Your task to perform on an android device: toggle javascript in the chrome app Image 0: 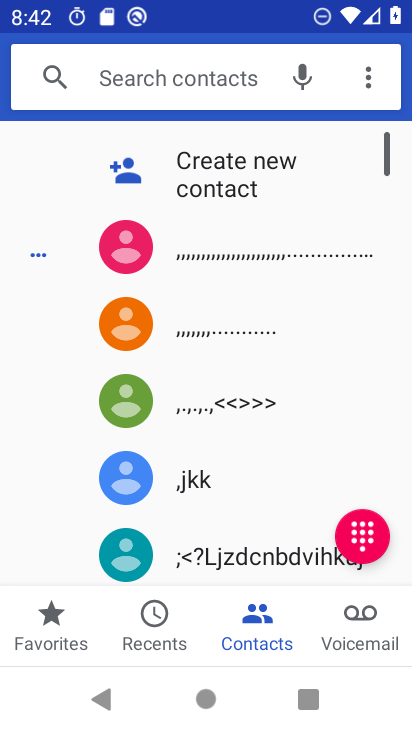
Step 0: press home button
Your task to perform on an android device: toggle javascript in the chrome app Image 1: 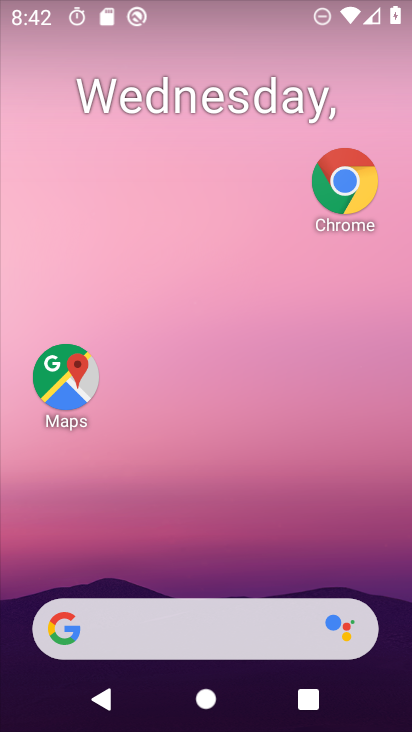
Step 1: drag from (251, 668) to (285, 334)
Your task to perform on an android device: toggle javascript in the chrome app Image 2: 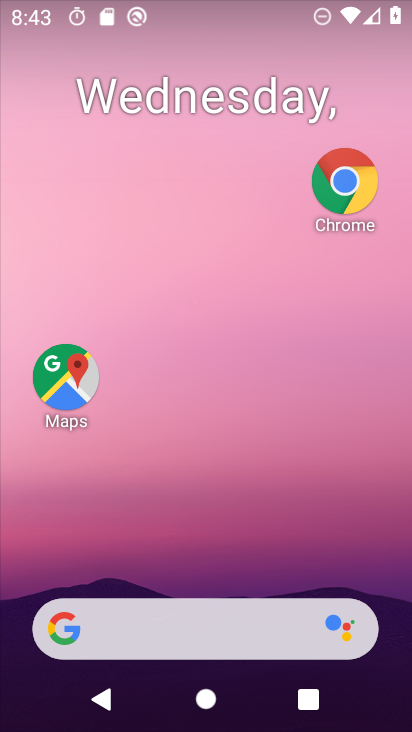
Step 2: drag from (242, 644) to (271, 3)
Your task to perform on an android device: toggle javascript in the chrome app Image 3: 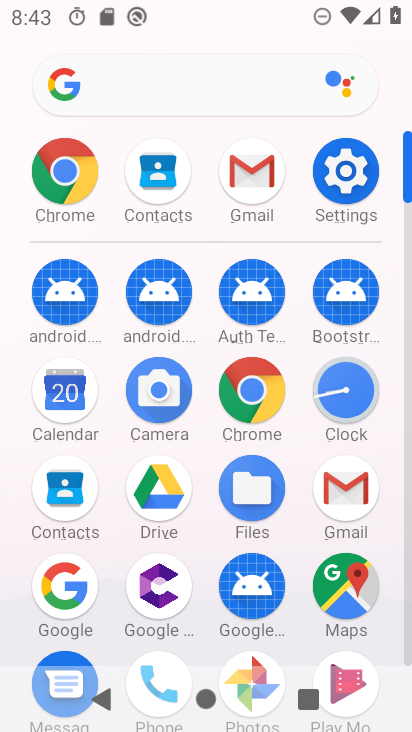
Step 3: click (255, 384)
Your task to perform on an android device: toggle javascript in the chrome app Image 4: 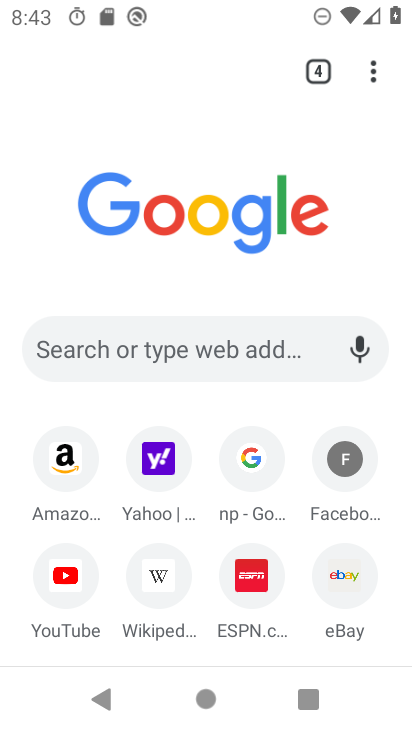
Step 4: click (373, 80)
Your task to perform on an android device: toggle javascript in the chrome app Image 5: 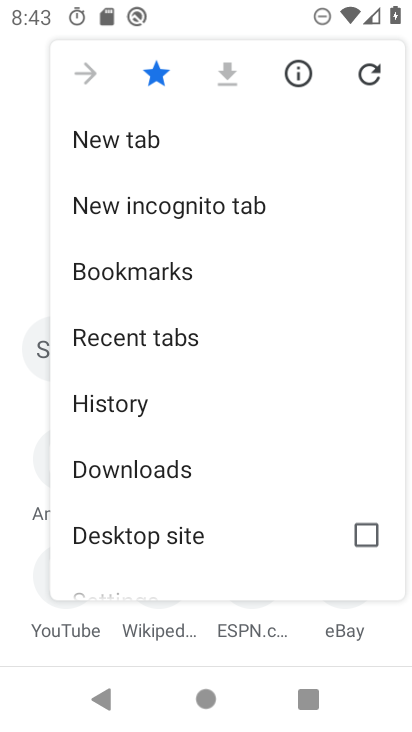
Step 5: click (106, 577)
Your task to perform on an android device: toggle javascript in the chrome app Image 6: 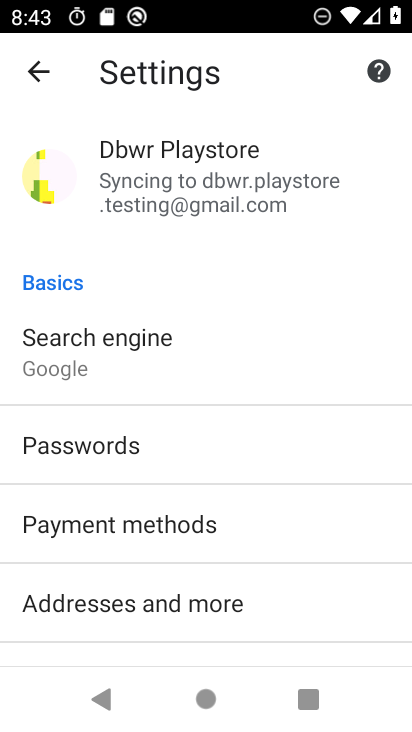
Step 6: drag from (128, 570) to (192, 257)
Your task to perform on an android device: toggle javascript in the chrome app Image 7: 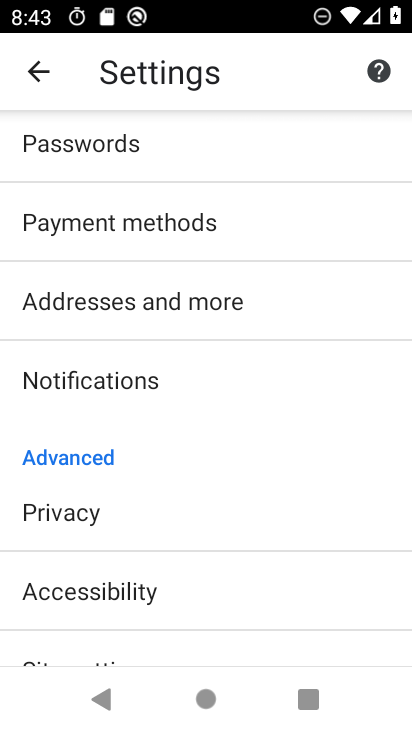
Step 7: drag from (166, 451) to (181, 349)
Your task to perform on an android device: toggle javascript in the chrome app Image 8: 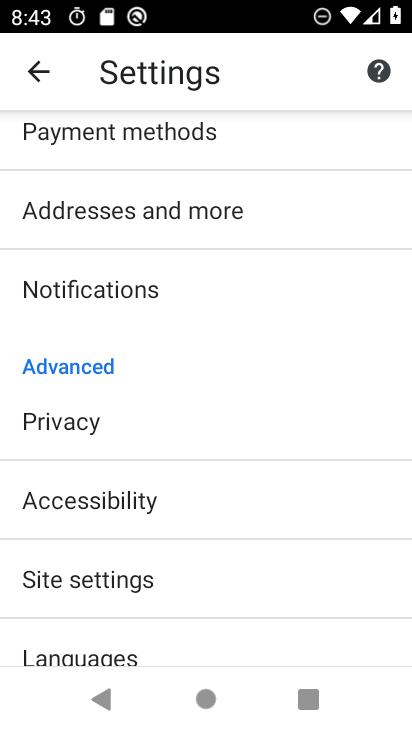
Step 8: click (57, 576)
Your task to perform on an android device: toggle javascript in the chrome app Image 9: 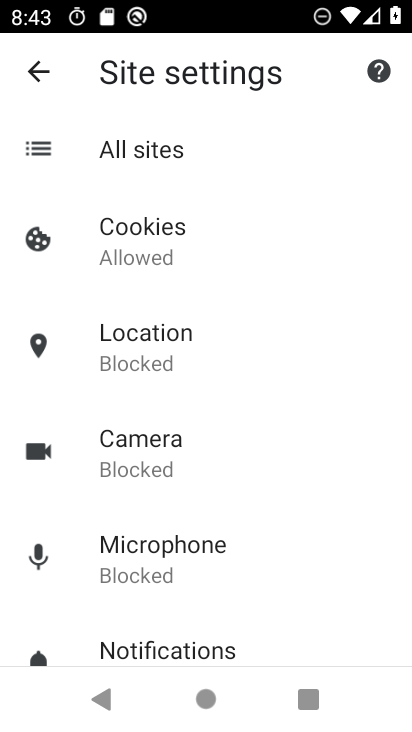
Step 9: drag from (248, 615) to (245, 404)
Your task to perform on an android device: toggle javascript in the chrome app Image 10: 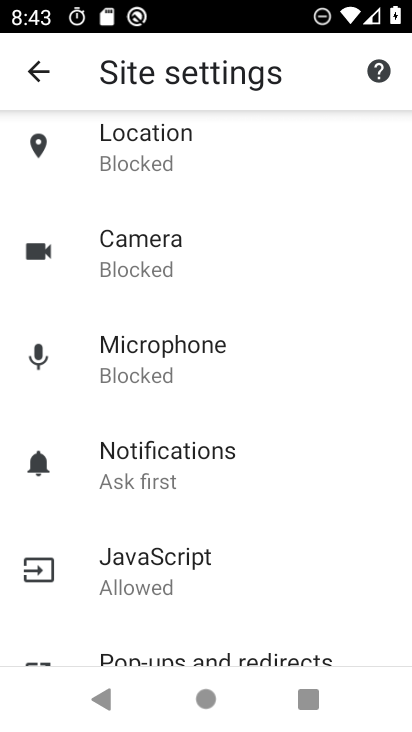
Step 10: click (125, 553)
Your task to perform on an android device: toggle javascript in the chrome app Image 11: 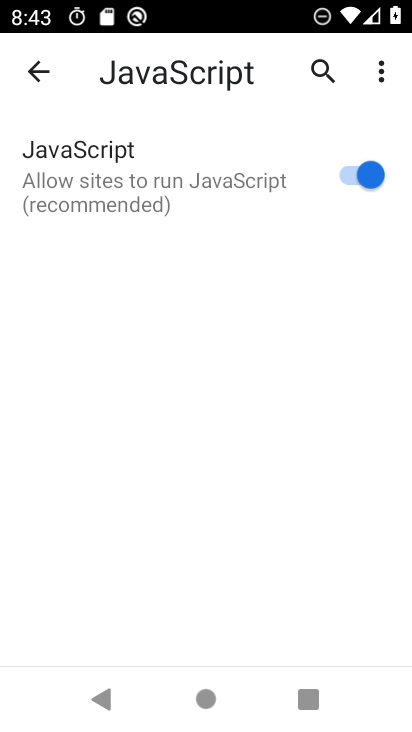
Step 11: task complete